Your task to perform on an android device: Go to Wikipedia Image 0: 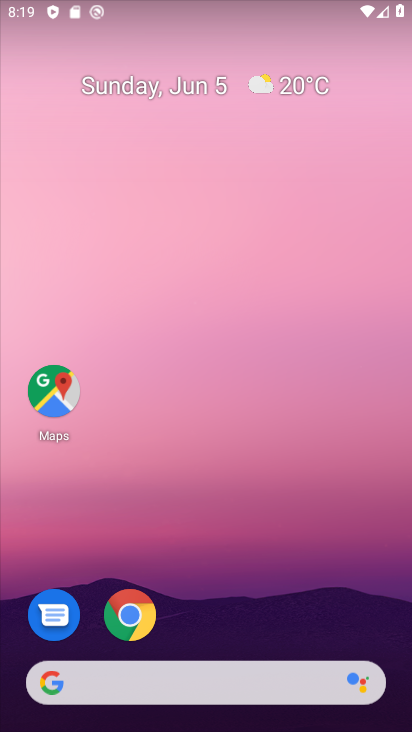
Step 0: click (151, 616)
Your task to perform on an android device: Go to Wikipedia Image 1: 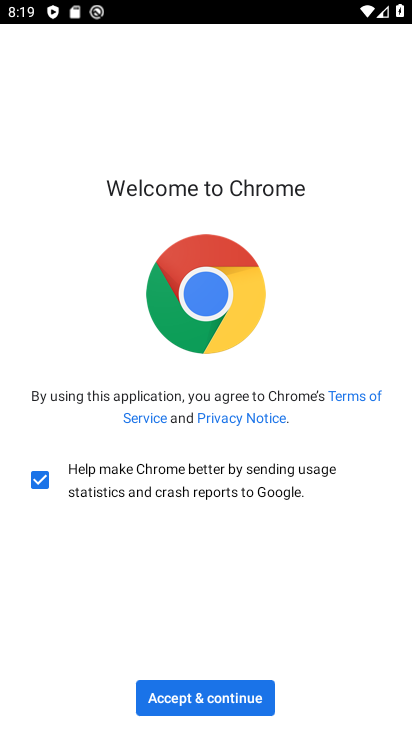
Step 1: click (241, 691)
Your task to perform on an android device: Go to Wikipedia Image 2: 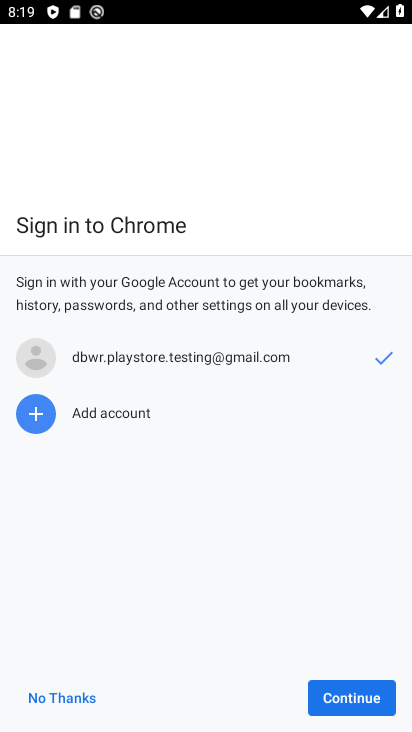
Step 2: click (352, 695)
Your task to perform on an android device: Go to Wikipedia Image 3: 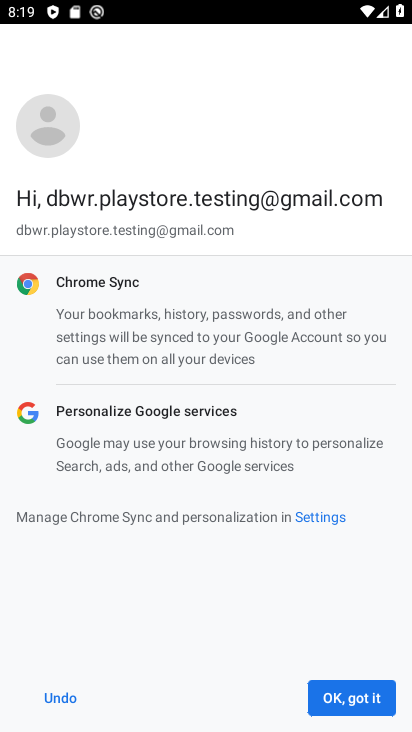
Step 3: click (353, 693)
Your task to perform on an android device: Go to Wikipedia Image 4: 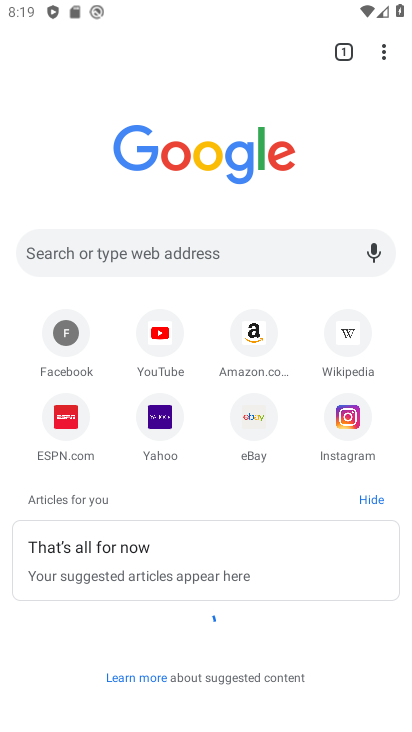
Step 4: click (348, 344)
Your task to perform on an android device: Go to Wikipedia Image 5: 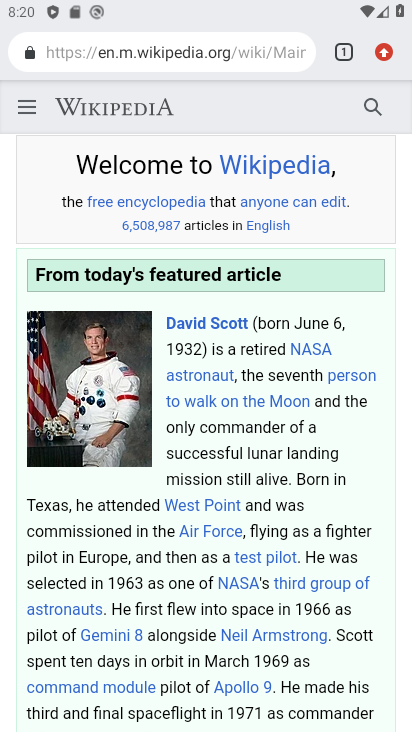
Step 5: task complete